Your task to perform on an android device: Open calendar and show me the fourth week of next month Image 0: 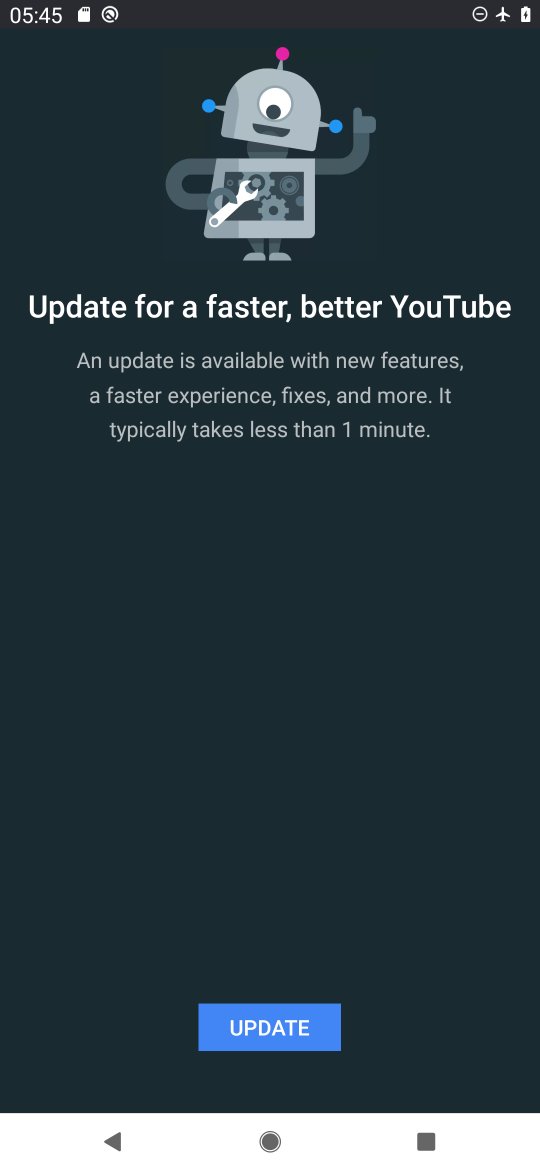
Step 0: press home button
Your task to perform on an android device: Open calendar and show me the fourth week of next month Image 1: 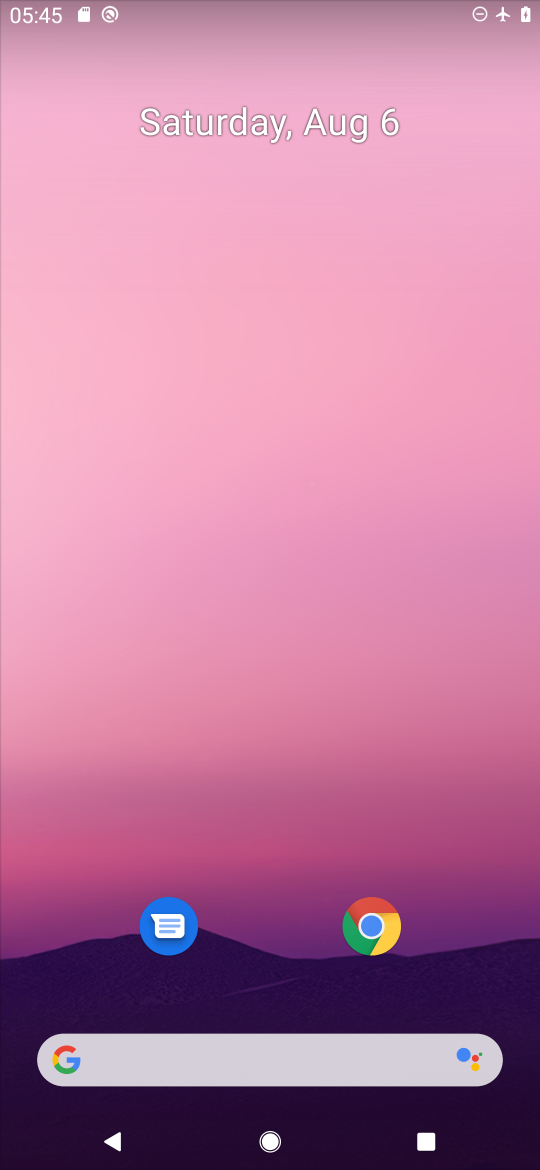
Step 1: drag from (269, 830) to (258, 345)
Your task to perform on an android device: Open calendar and show me the fourth week of next month Image 2: 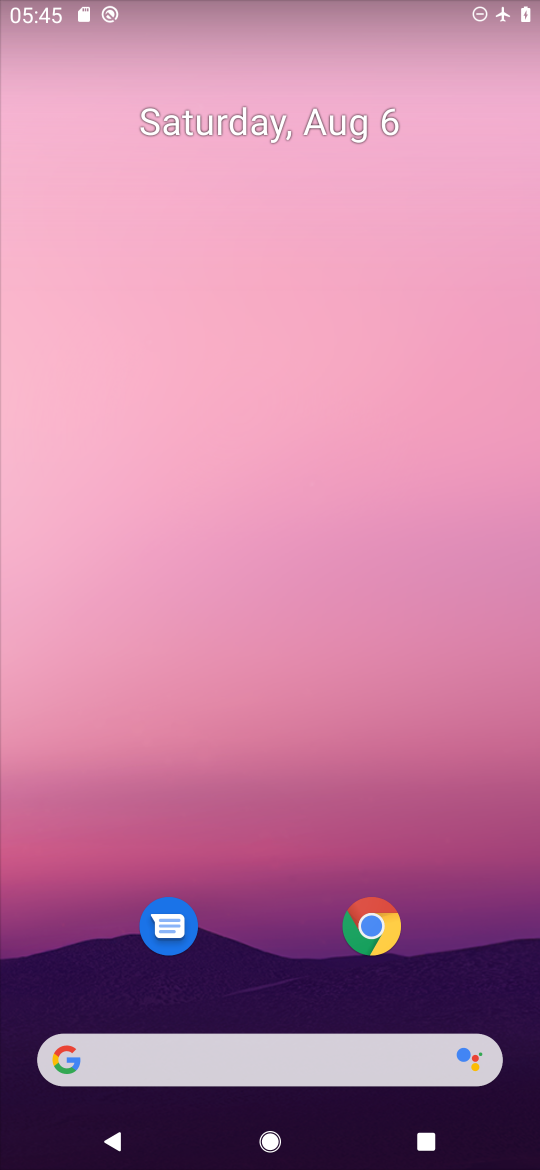
Step 2: drag from (265, 905) to (296, 185)
Your task to perform on an android device: Open calendar and show me the fourth week of next month Image 3: 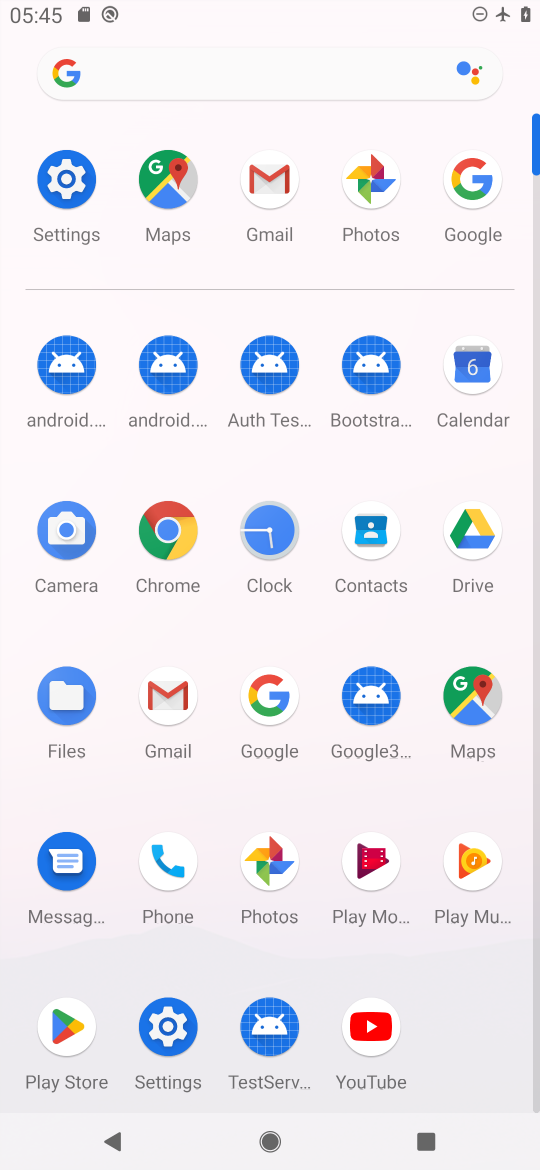
Step 3: click (451, 377)
Your task to perform on an android device: Open calendar and show me the fourth week of next month Image 4: 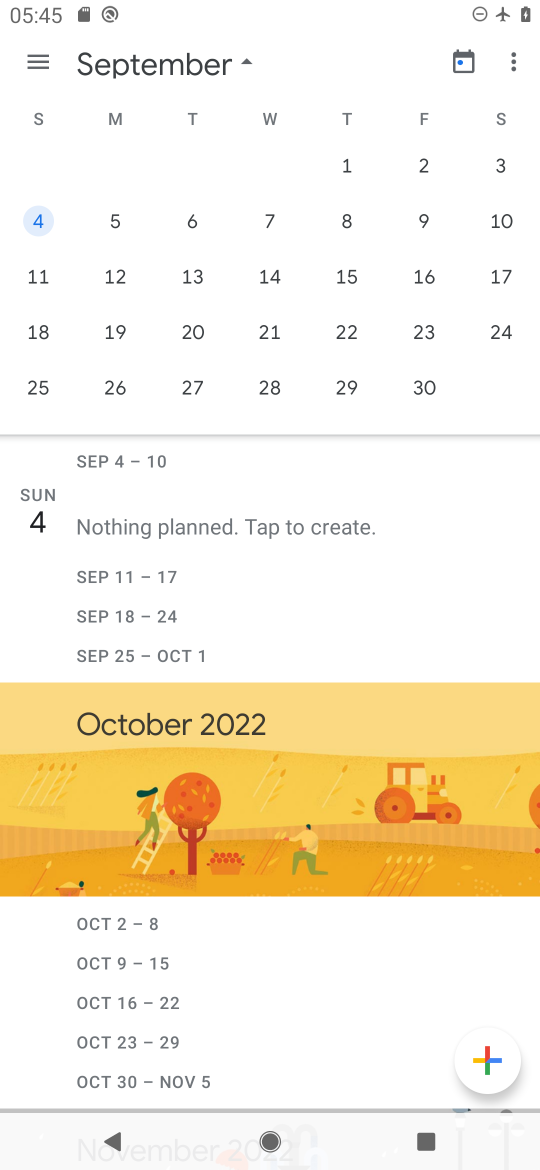
Step 4: click (27, 333)
Your task to perform on an android device: Open calendar and show me the fourth week of next month Image 5: 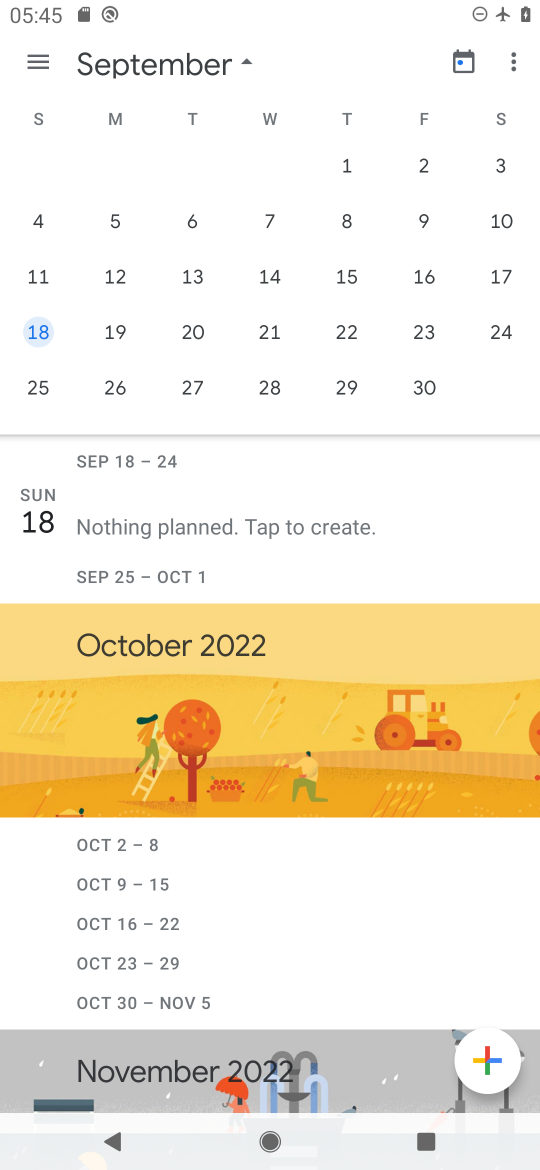
Step 5: task complete